Your task to perform on an android device: Go to Wikipedia Image 0: 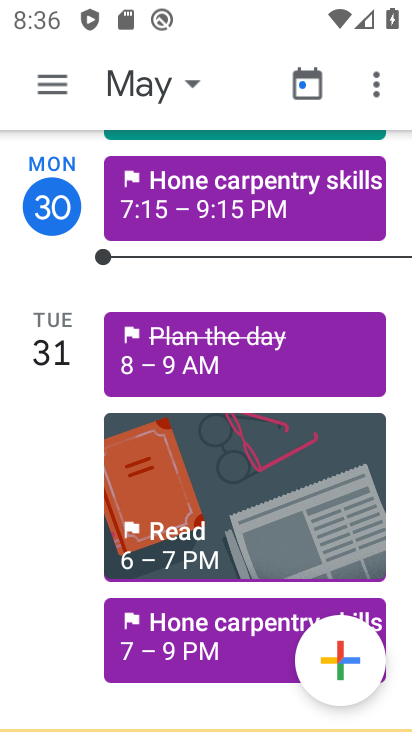
Step 0: press home button
Your task to perform on an android device: Go to Wikipedia Image 1: 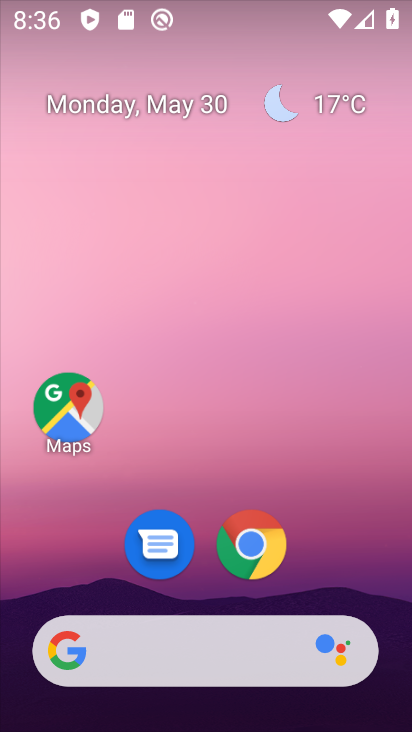
Step 1: click (250, 542)
Your task to perform on an android device: Go to Wikipedia Image 2: 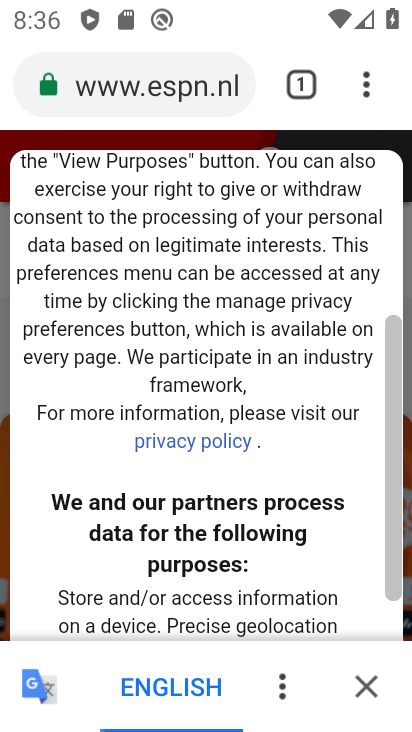
Step 2: click (234, 71)
Your task to perform on an android device: Go to Wikipedia Image 3: 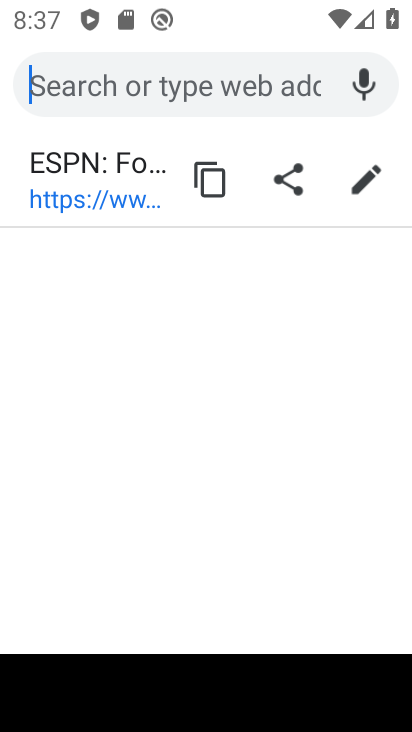
Step 3: type "Wikipedia"
Your task to perform on an android device: Go to Wikipedia Image 4: 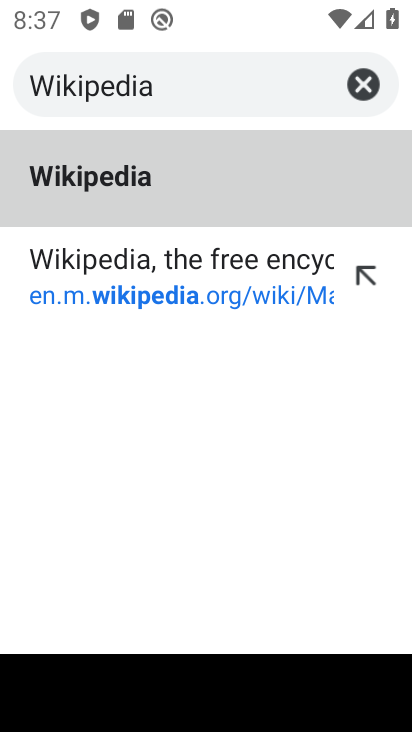
Step 4: click (141, 178)
Your task to perform on an android device: Go to Wikipedia Image 5: 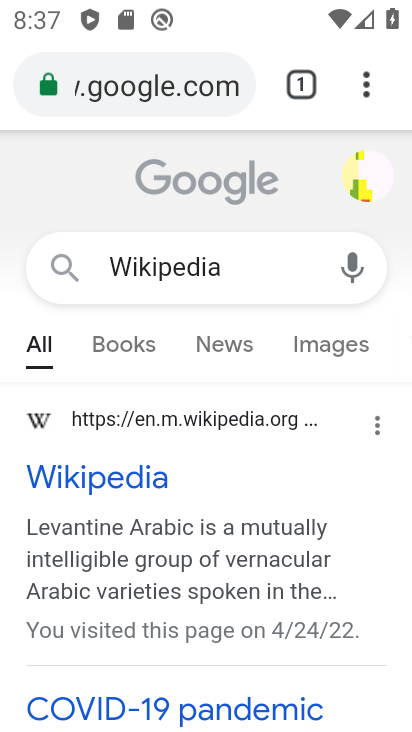
Step 5: click (148, 485)
Your task to perform on an android device: Go to Wikipedia Image 6: 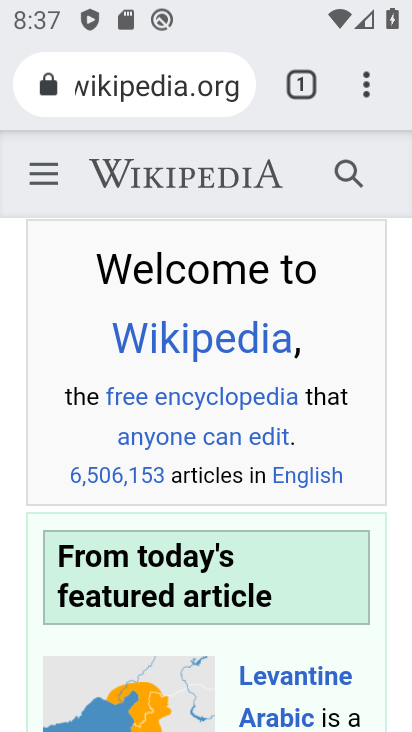
Step 6: task complete